Your task to perform on an android device: toggle pop-ups in chrome Image 0: 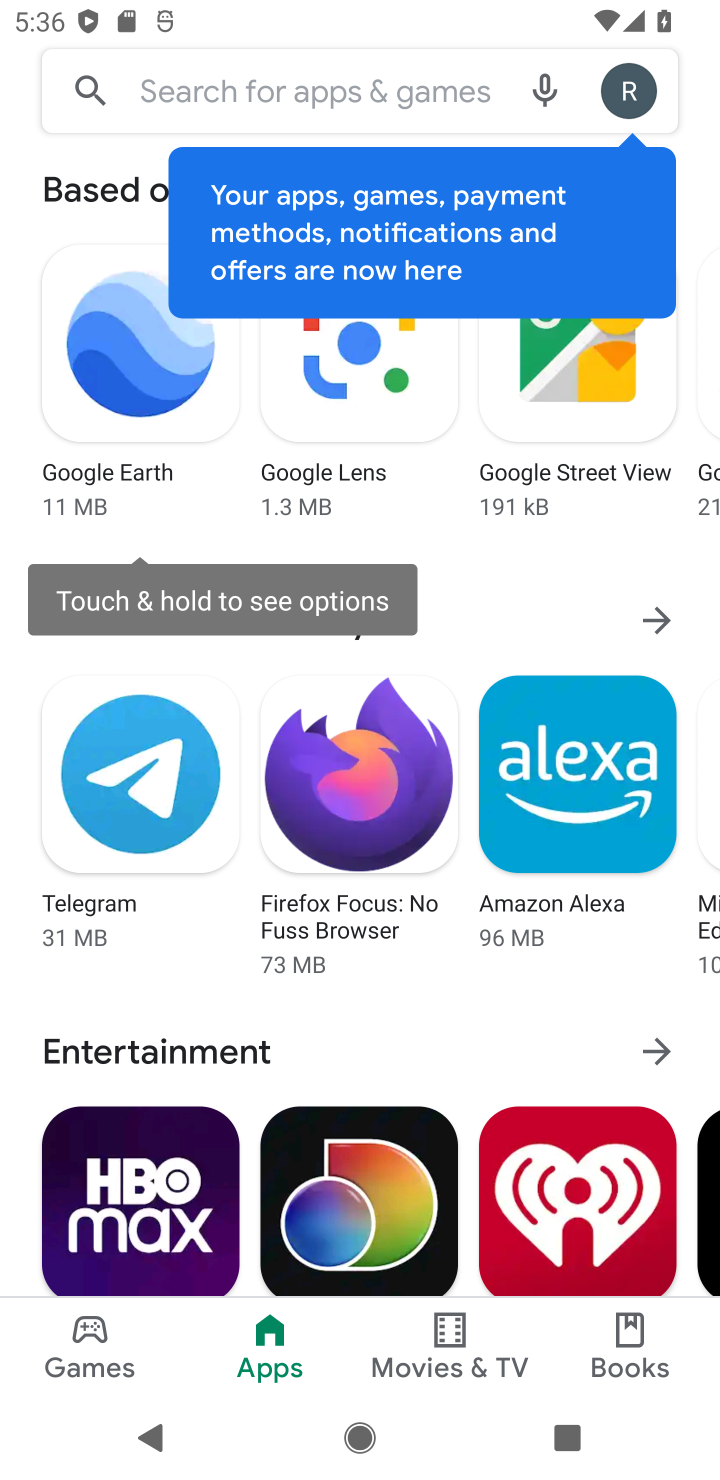
Step 0: press home button
Your task to perform on an android device: toggle pop-ups in chrome Image 1: 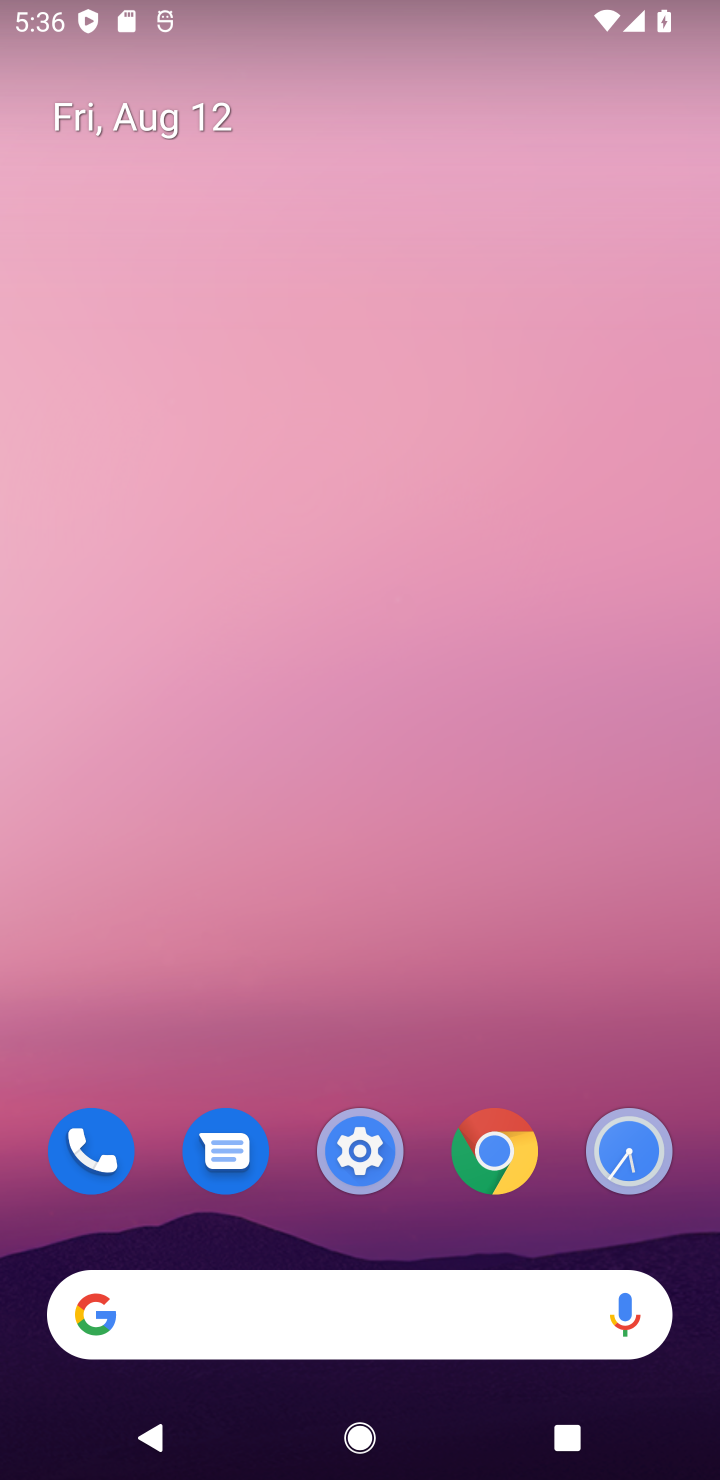
Step 1: drag from (446, 1029) to (413, 216)
Your task to perform on an android device: toggle pop-ups in chrome Image 2: 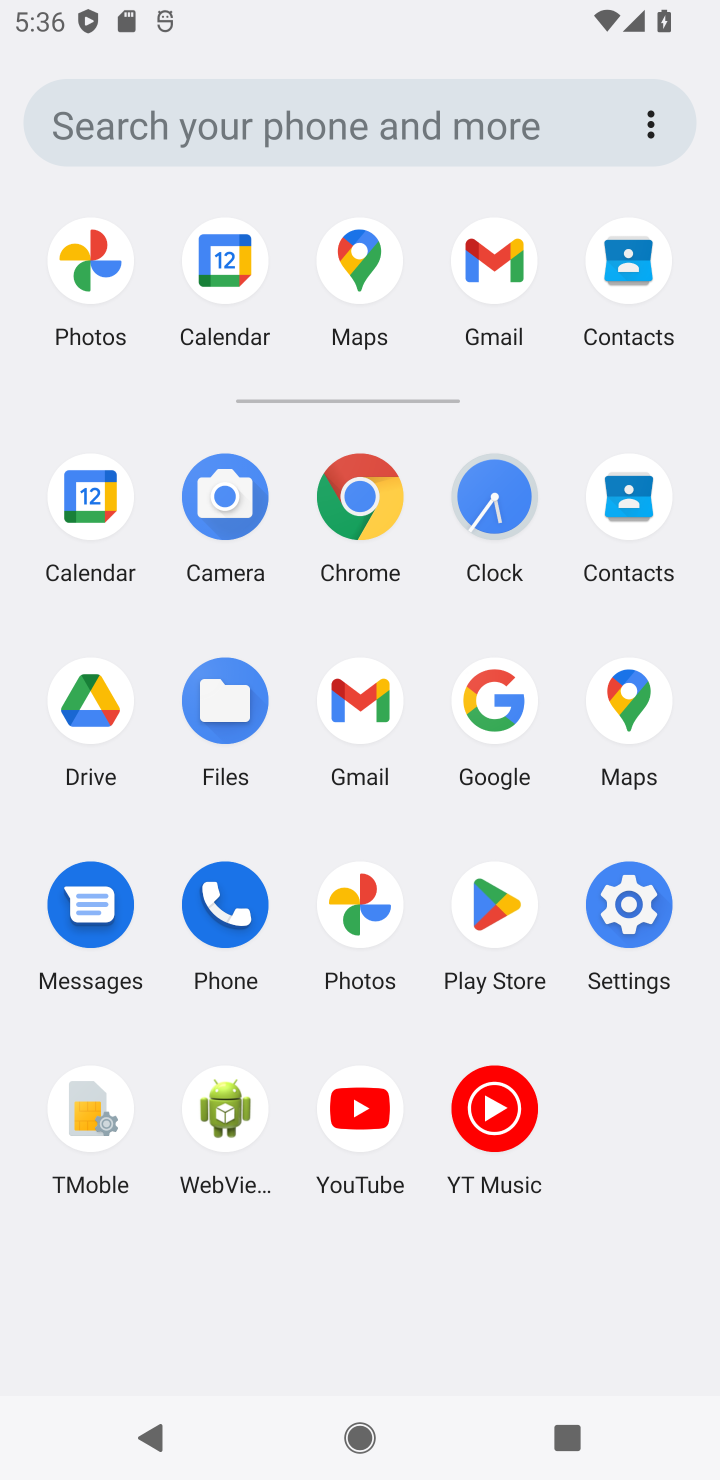
Step 2: click (370, 499)
Your task to perform on an android device: toggle pop-ups in chrome Image 3: 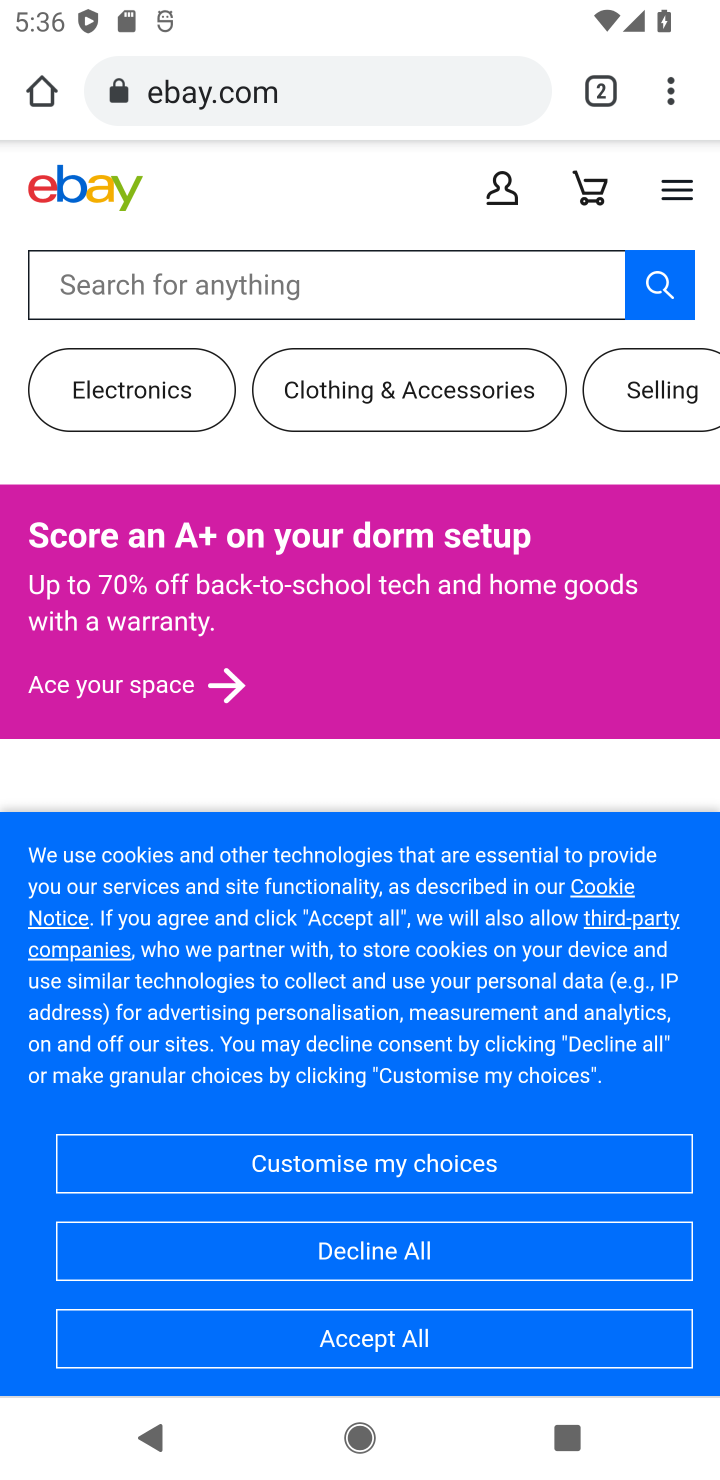
Step 3: drag from (685, 83) to (415, 1244)
Your task to perform on an android device: toggle pop-ups in chrome Image 4: 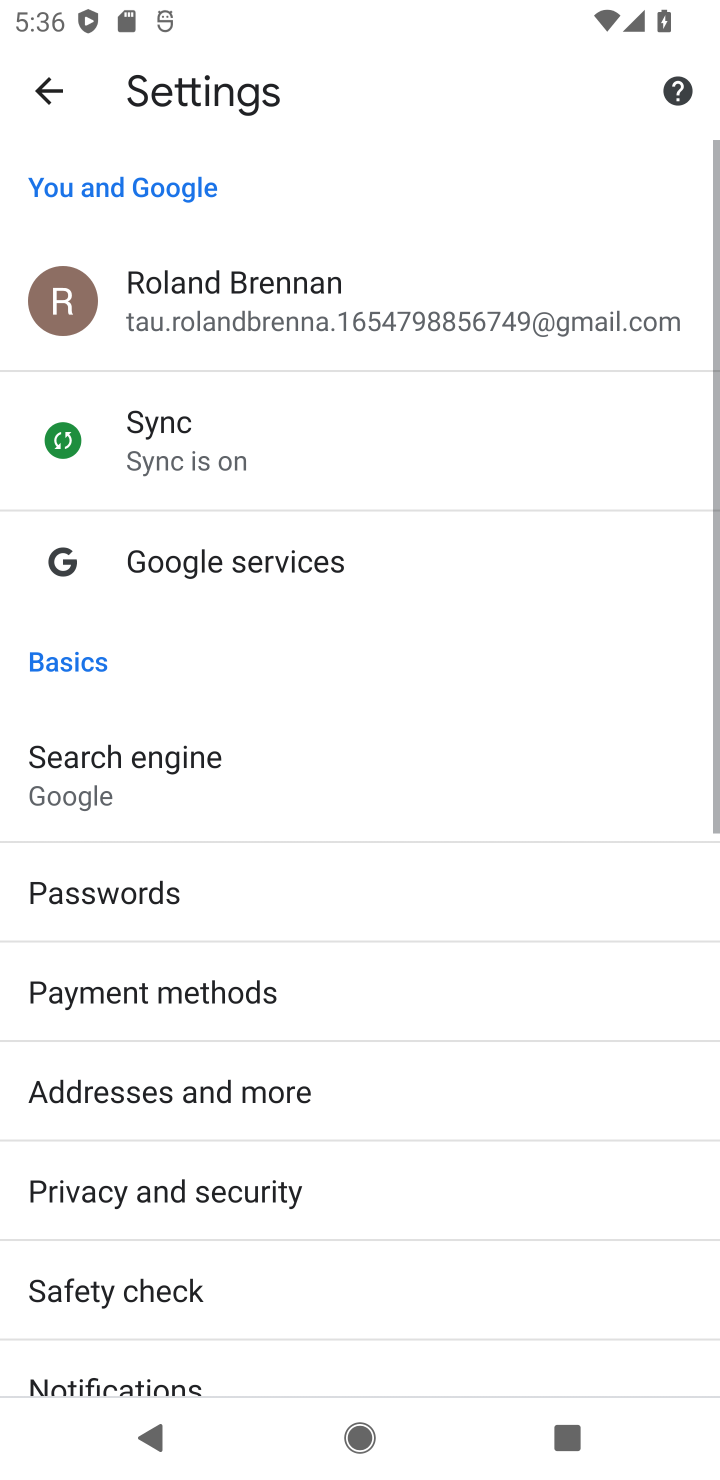
Step 4: drag from (424, 1202) to (507, 381)
Your task to perform on an android device: toggle pop-ups in chrome Image 5: 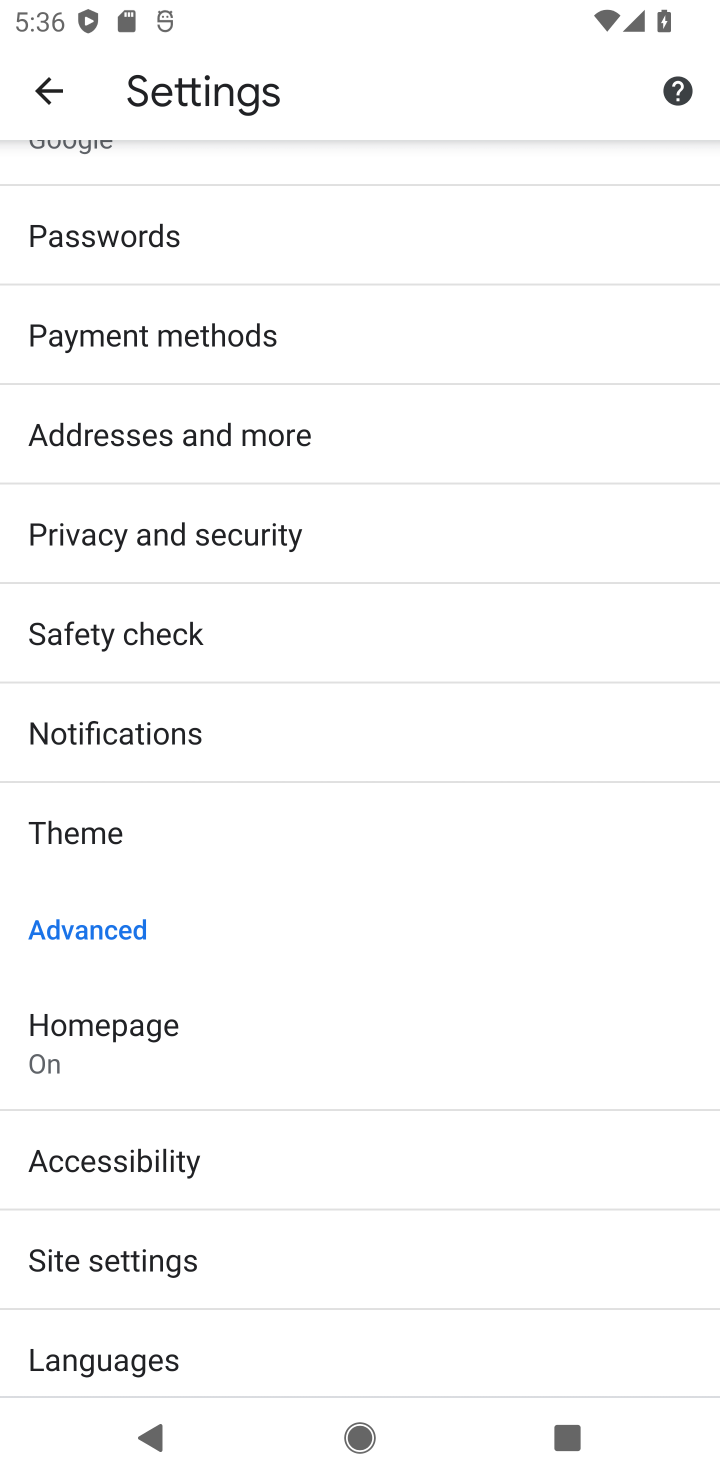
Step 5: click (199, 1243)
Your task to perform on an android device: toggle pop-ups in chrome Image 6: 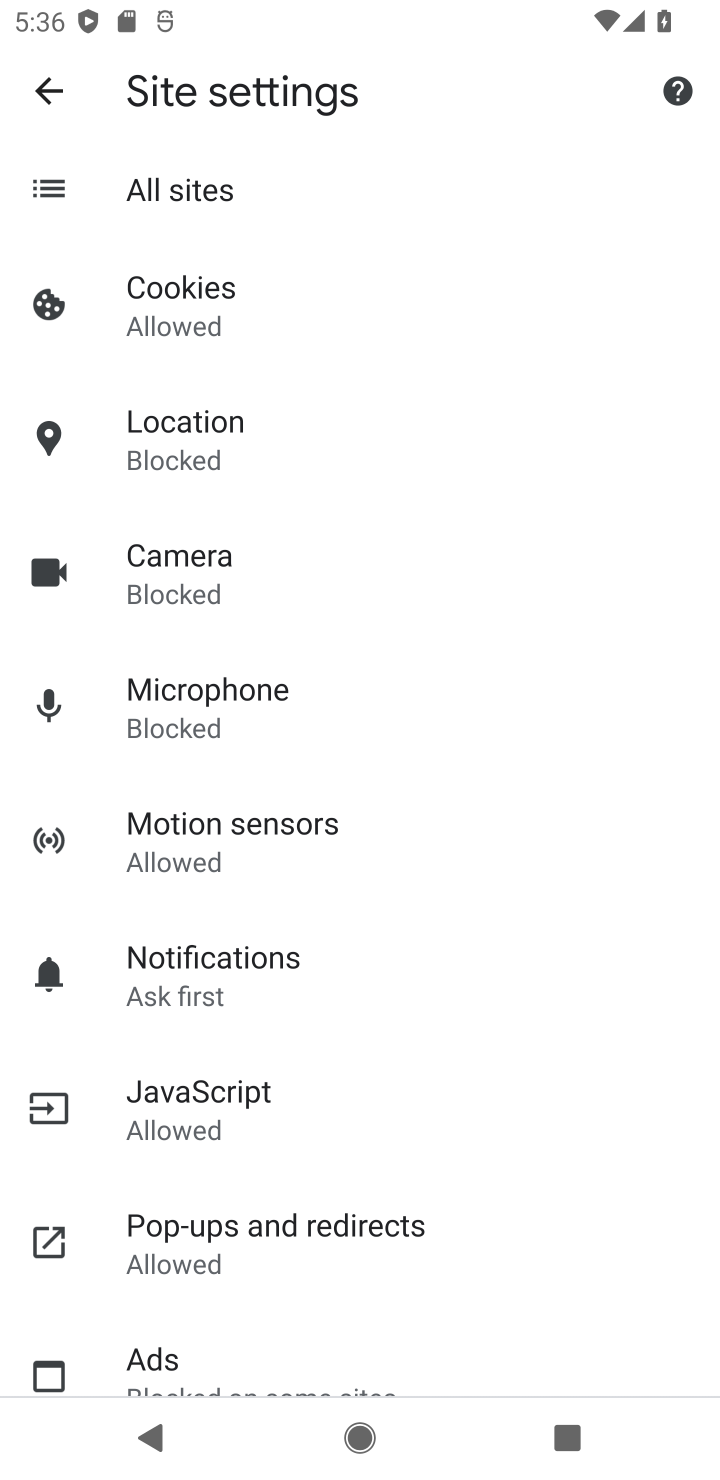
Step 6: click (290, 1229)
Your task to perform on an android device: toggle pop-ups in chrome Image 7: 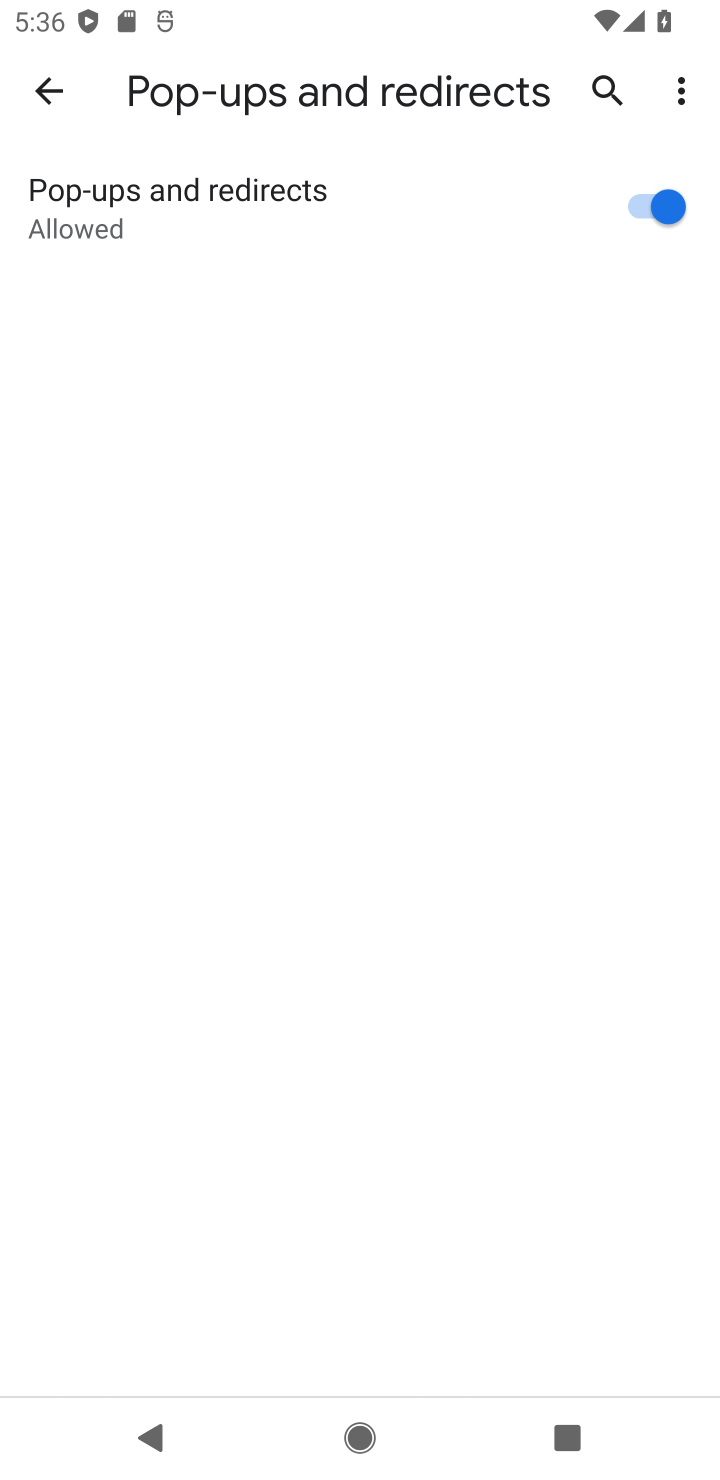
Step 7: click (666, 215)
Your task to perform on an android device: toggle pop-ups in chrome Image 8: 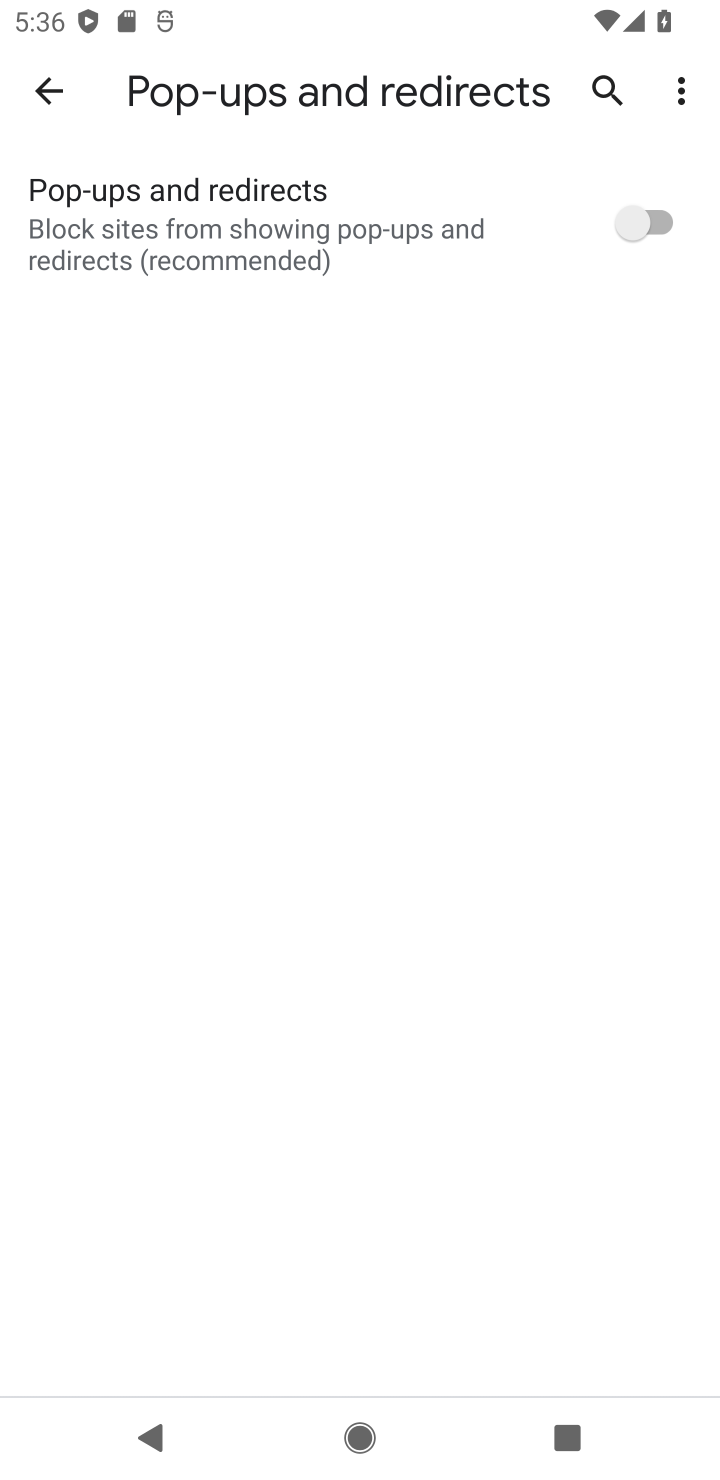
Step 8: task complete